Your task to perform on an android device: set an alarm Image 0: 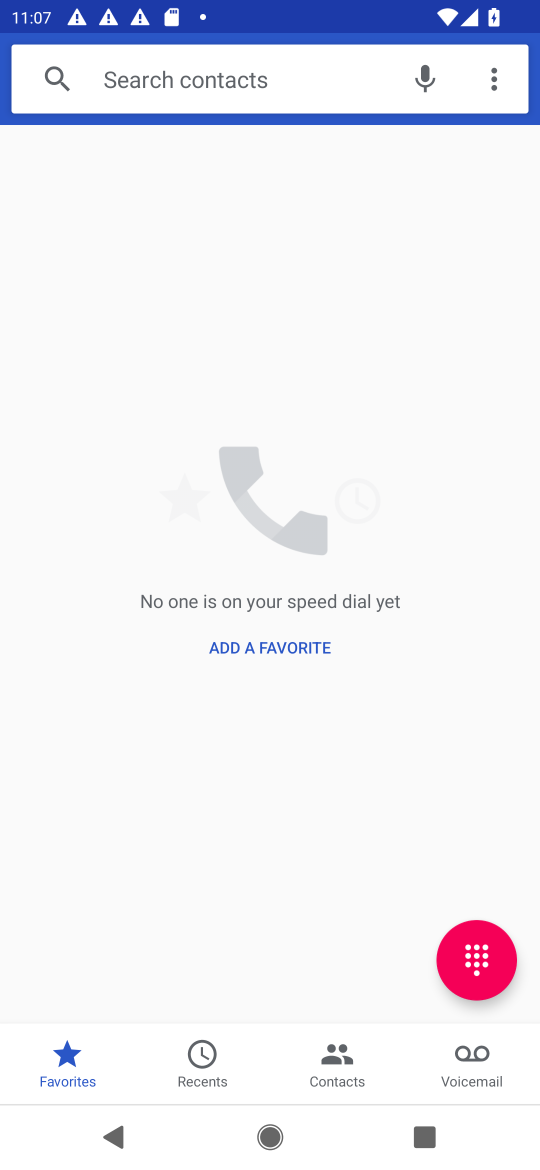
Step 0: press home button
Your task to perform on an android device: set an alarm Image 1: 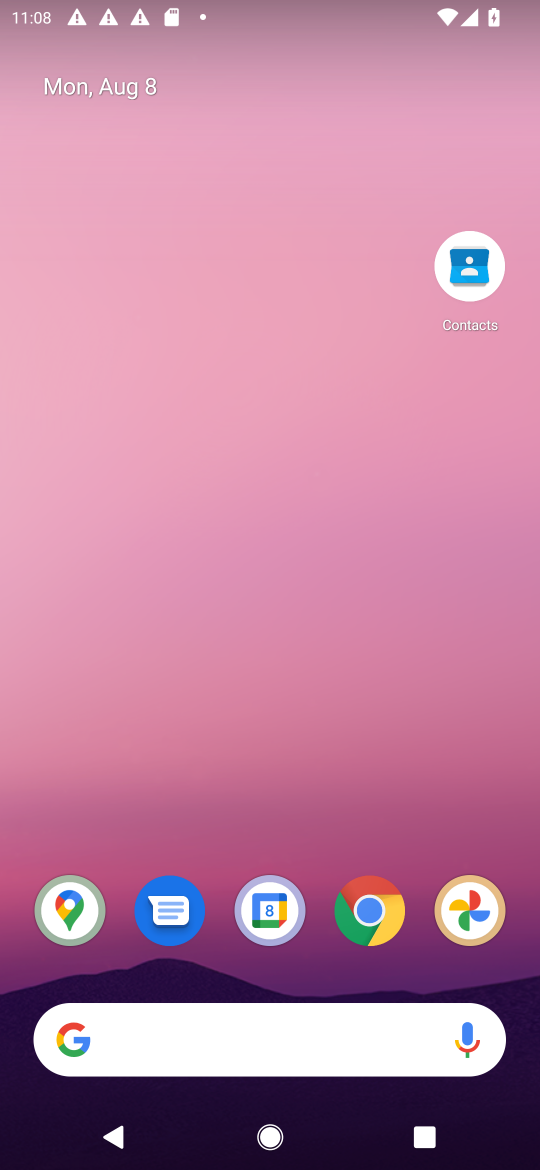
Step 1: drag from (274, 991) to (254, 271)
Your task to perform on an android device: set an alarm Image 2: 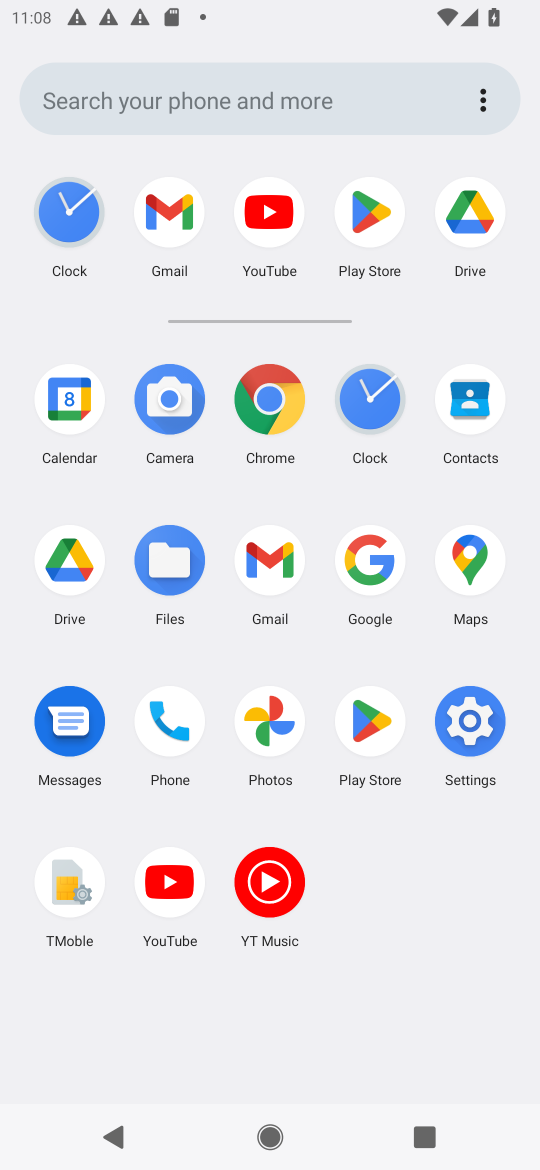
Step 2: click (366, 411)
Your task to perform on an android device: set an alarm Image 3: 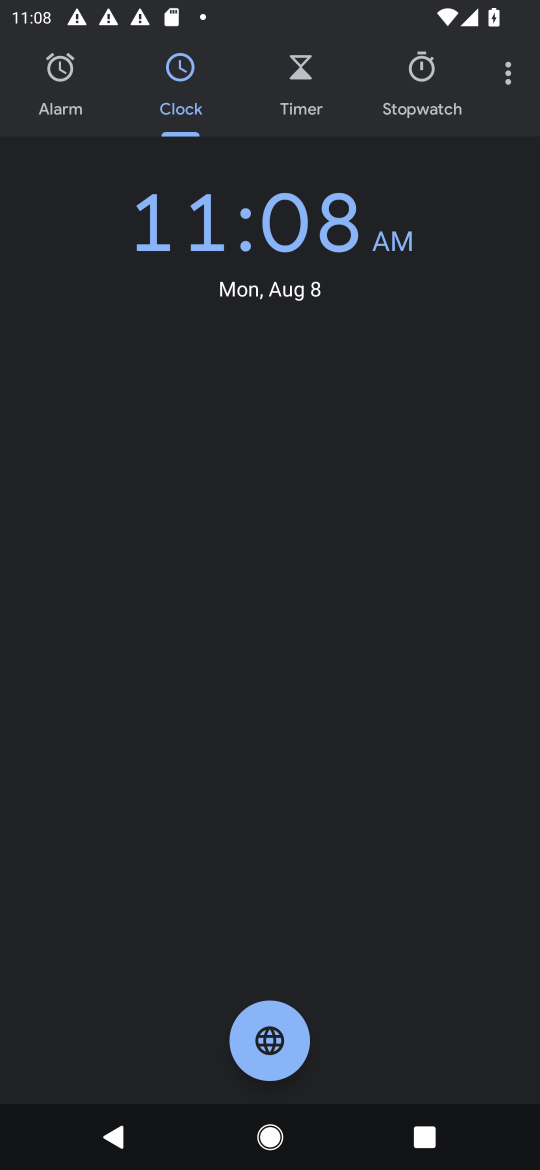
Step 3: click (75, 117)
Your task to perform on an android device: set an alarm Image 4: 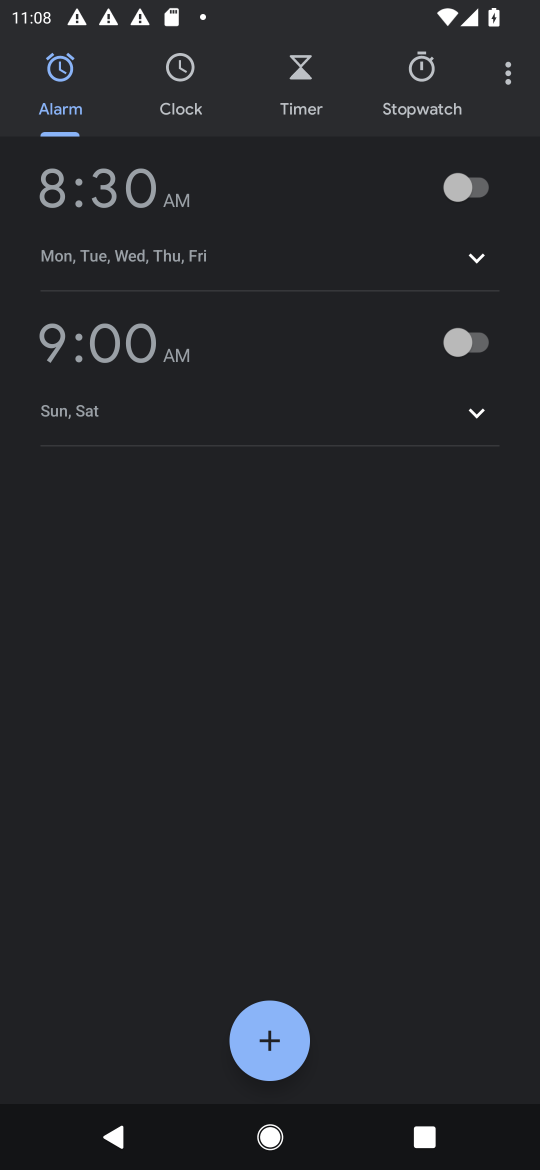
Step 4: click (273, 1034)
Your task to perform on an android device: set an alarm Image 5: 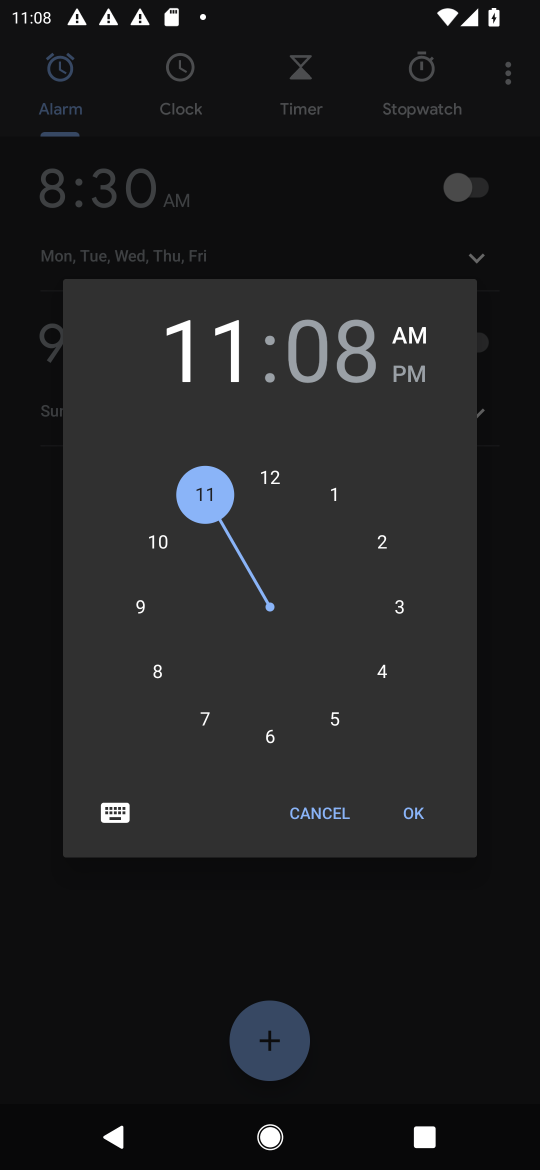
Step 5: click (427, 811)
Your task to perform on an android device: set an alarm Image 6: 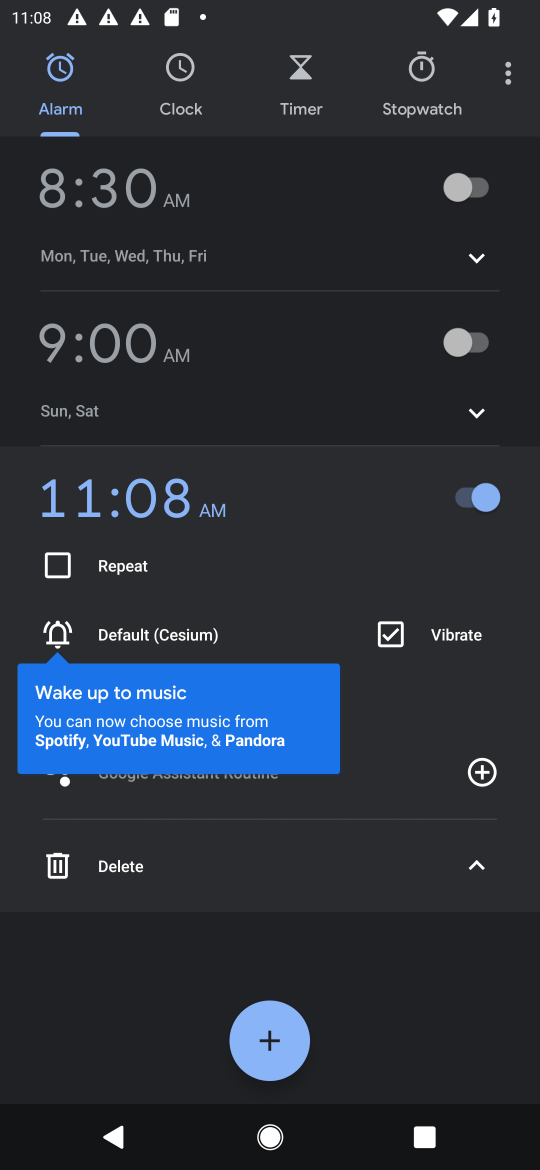
Step 6: click (279, 1019)
Your task to perform on an android device: set an alarm Image 7: 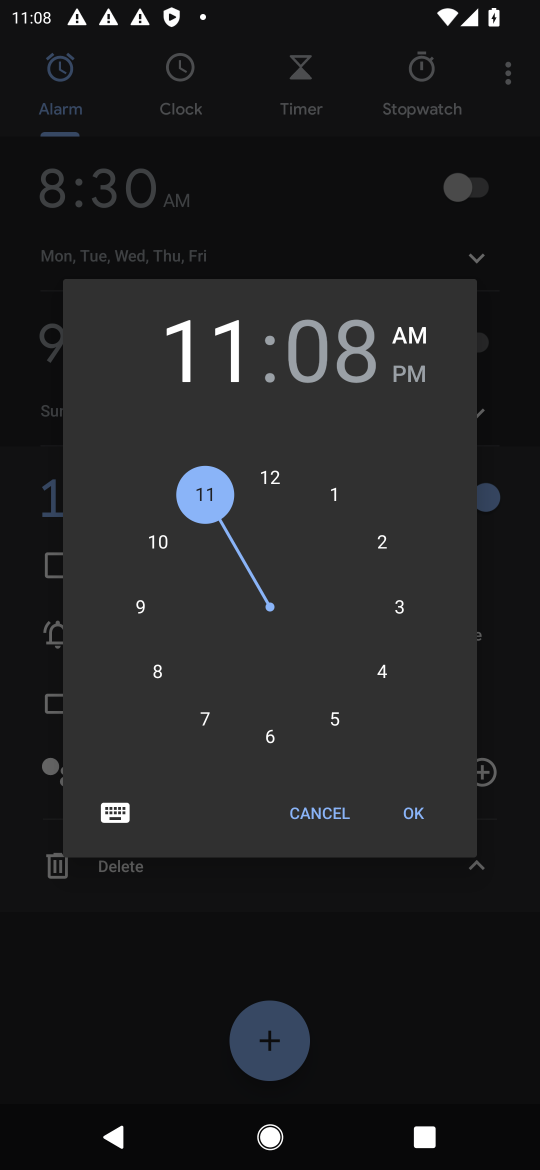
Step 7: task complete